Your task to perform on an android device: Go to network settings Image 0: 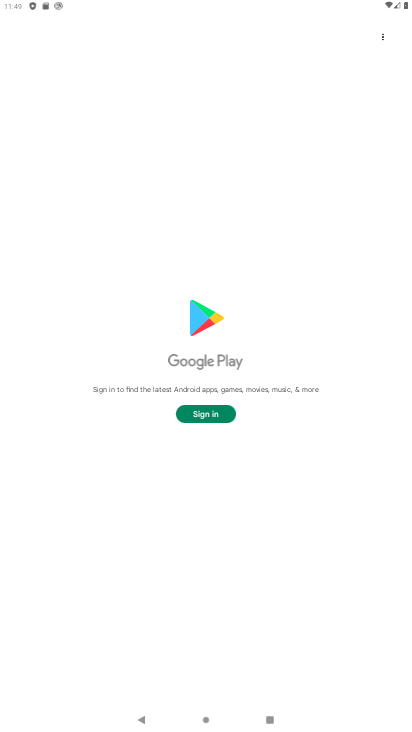
Step 0: press home button
Your task to perform on an android device: Go to network settings Image 1: 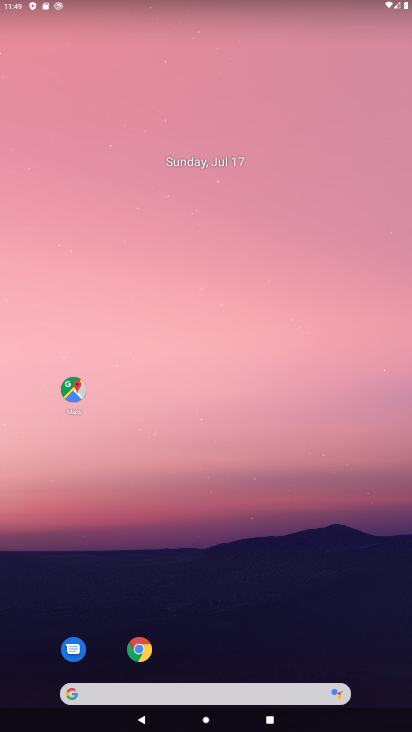
Step 1: drag from (66, 682) to (236, 274)
Your task to perform on an android device: Go to network settings Image 2: 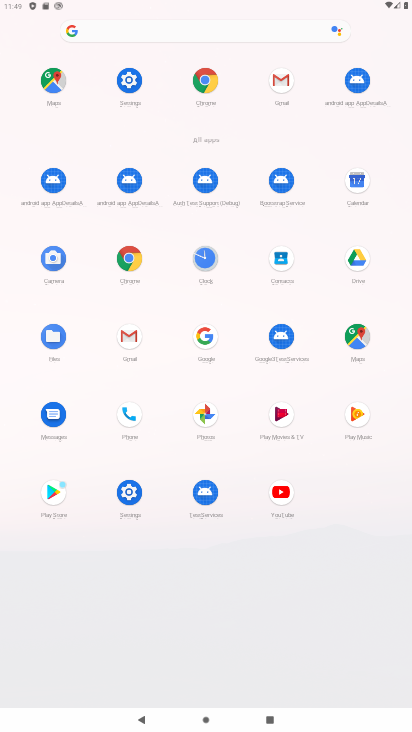
Step 2: click (133, 505)
Your task to perform on an android device: Go to network settings Image 3: 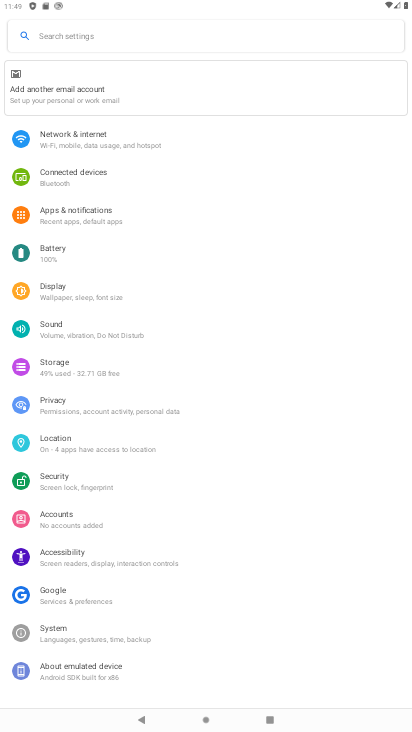
Step 3: click (95, 140)
Your task to perform on an android device: Go to network settings Image 4: 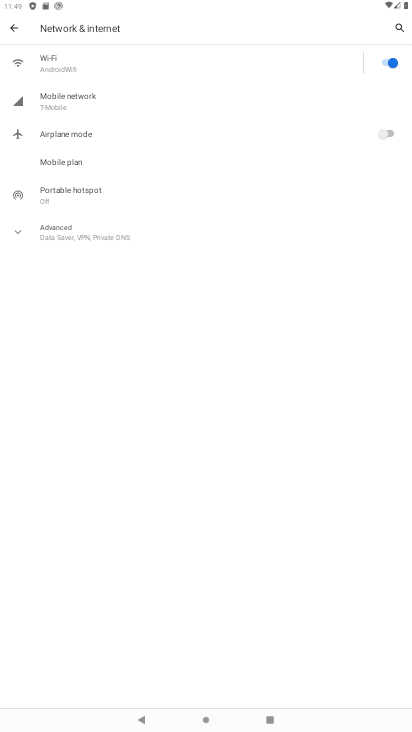
Step 4: task complete